Your task to perform on an android device: Do I have any events tomorrow? Image 0: 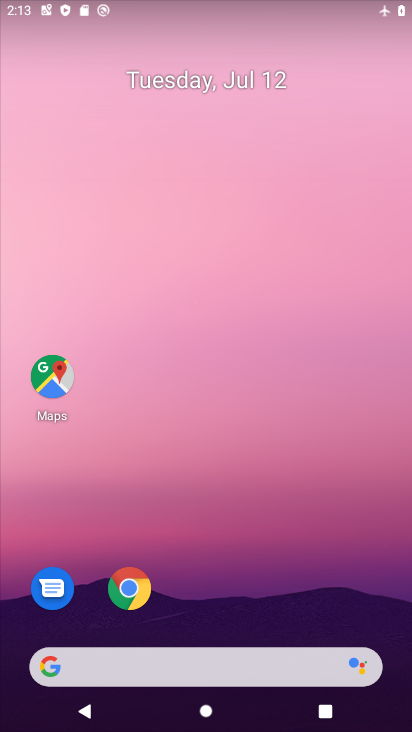
Step 0: drag from (177, 659) to (156, 0)
Your task to perform on an android device: Do I have any events tomorrow? Image 1: 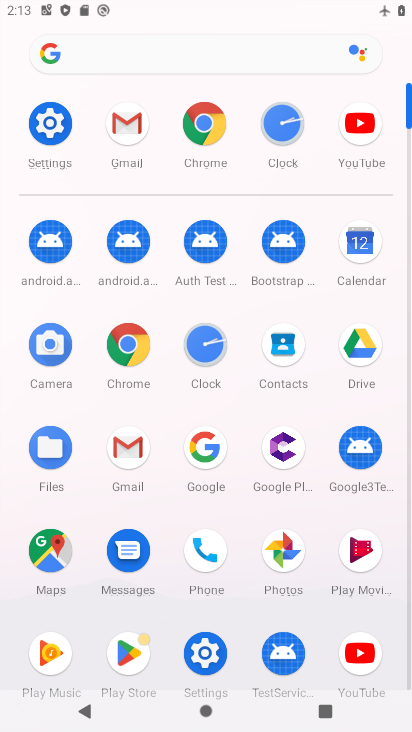
Step 1: click (51, 146)
Your task to perform on an android device: Do I have any events tomorrow? Image 2: 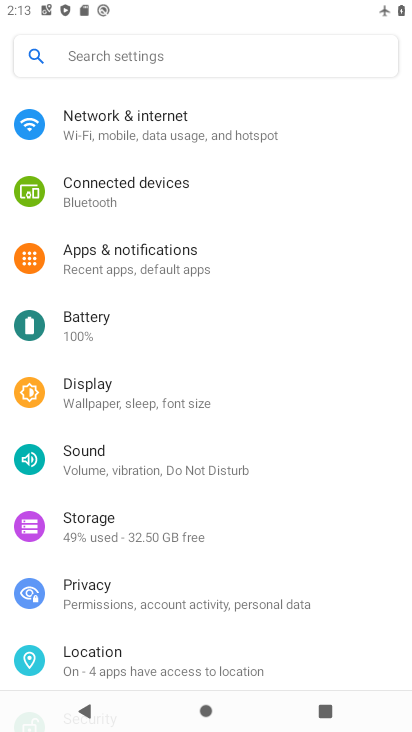
Step 2: press home button
Your task to perform on an android device: Do I have any events tomorrow? Image 3: 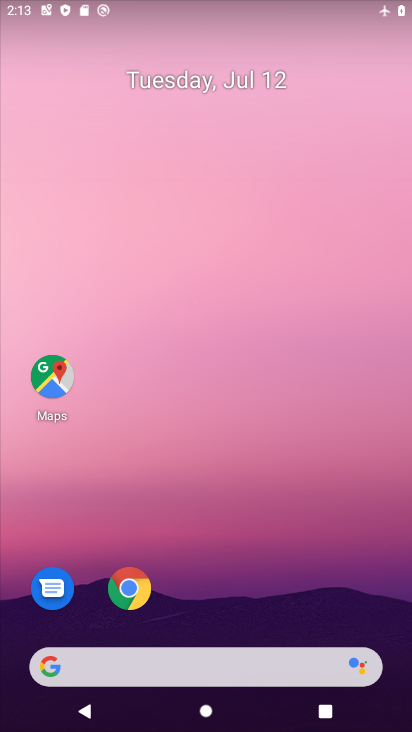
Step 3: drag from (187, 687) to (116, 119)
Your task to perform on an android device: Do I have any events tomorrow? Image 4: 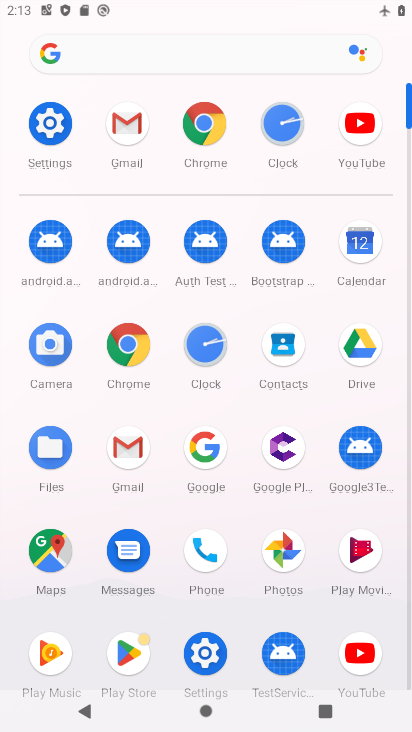
Step 4: click (357, 257)
Your task to perform on an android device: Do I have any events tomorrow? Image 5: 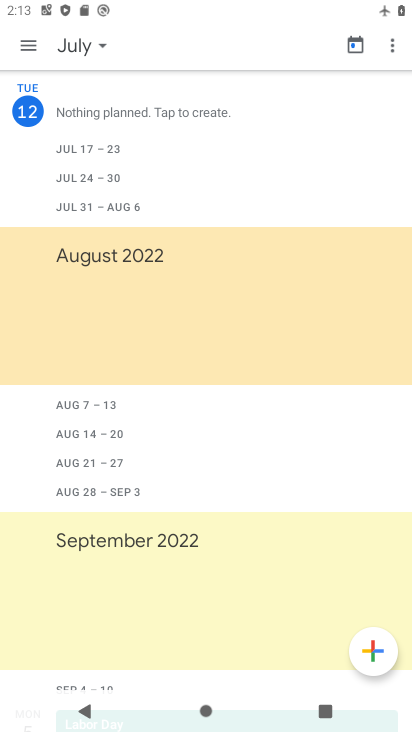
Step 5: click (34, 44)
Your task to perform on an android device: Do I have any events tomorrow? Image 6: 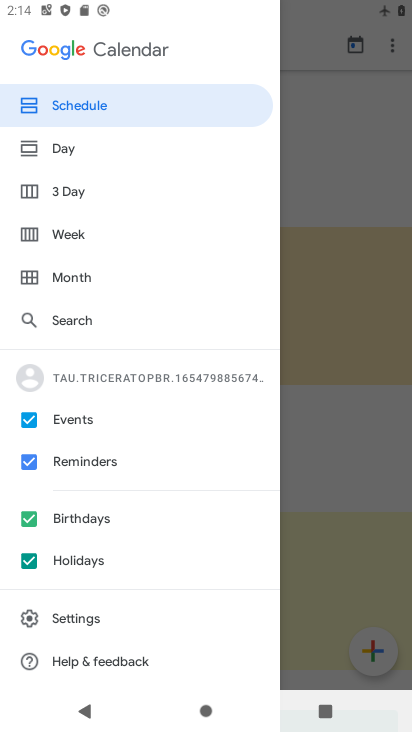
Step 6: click (78, 106)
Your task to perform on an android device: Do I have any events tomorrow? Image 7: 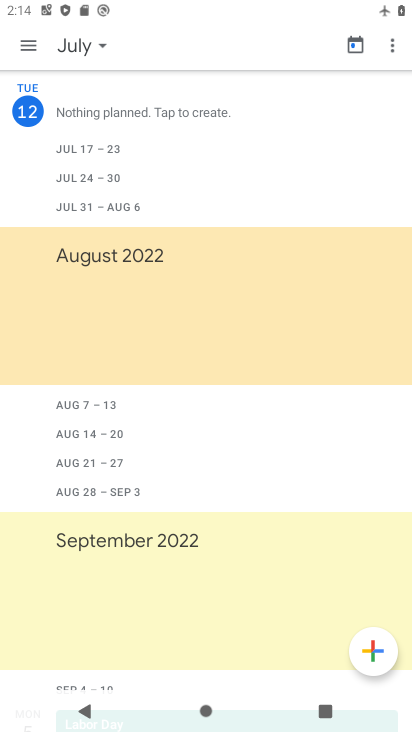
Step 7: task complete